Your task to perform on an android device: Search for vegetarian restaurants on Maps Image 0: 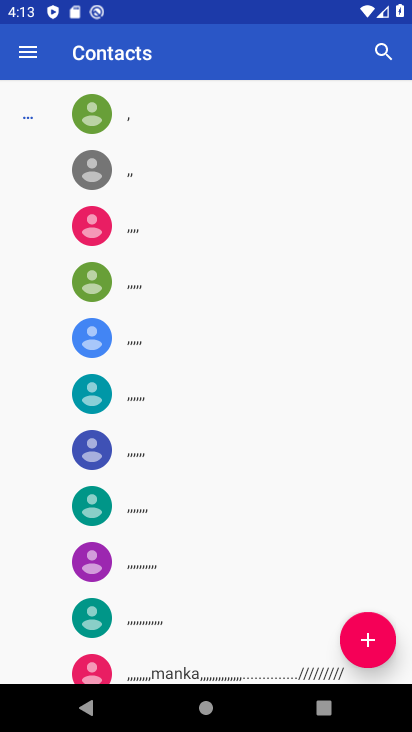
Step 0: press home button
Your task to perform on an android device: Search for vegetarian restaurants on Maps Image 1: 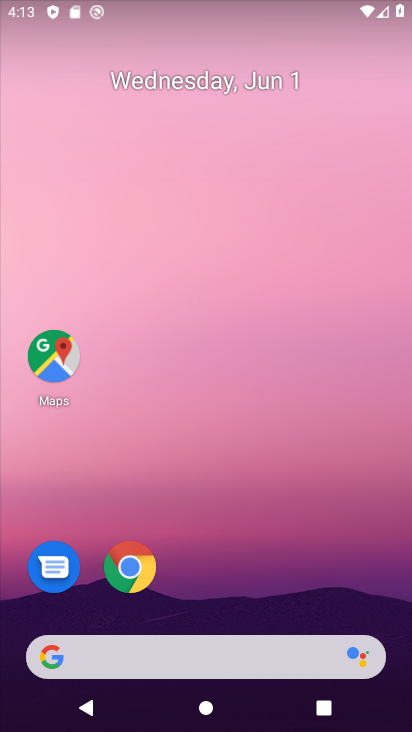
Step 1: click (55, 358)
Your task to perform on an android device: Search for vegetarian restaurants on Maps Image 2: 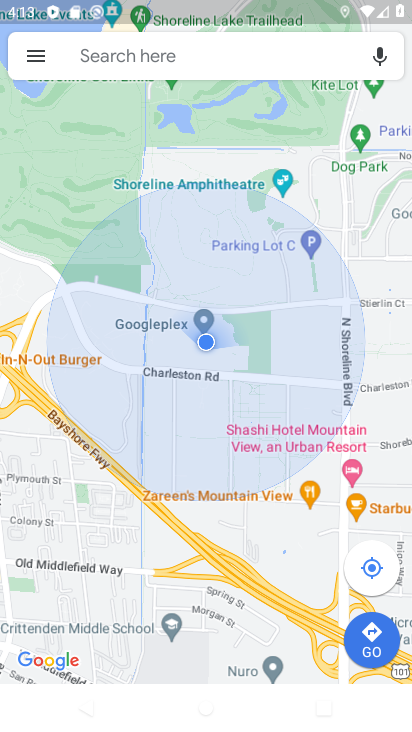
Step 2: click (175, 63)
Your task to perform on an android device: Search for vegetarian restaurants on Maps Image 3: 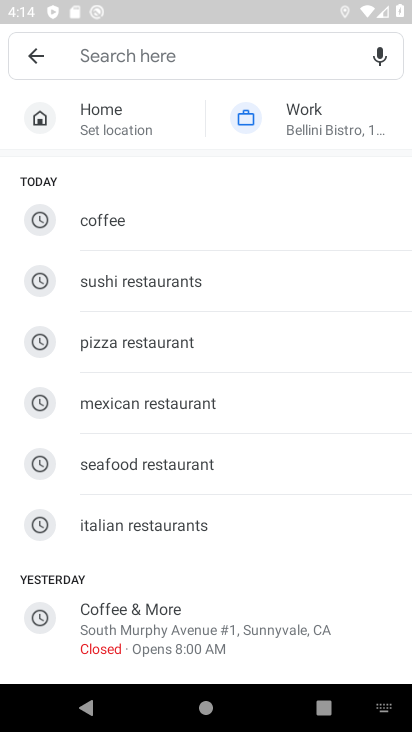
Step 3: type "vegetarian"
Your task to perform on an android device: Search for vegetarian restaurants on Maps Image 4: 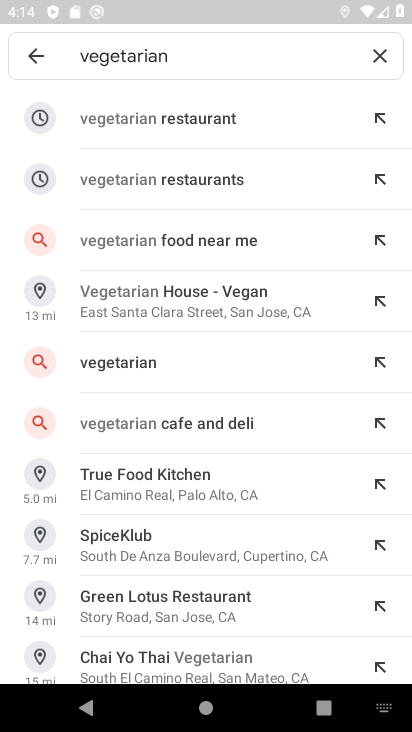
Step 4: click (258, 120)
Your task to perform on an android device: Search for vegetarian restaurants on Maps Image 5: 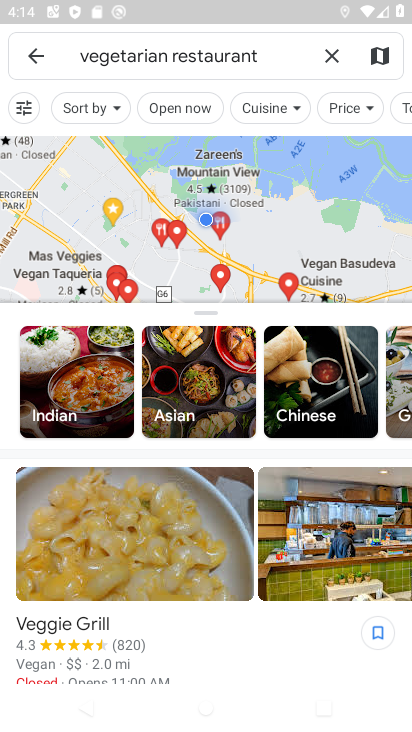
Step 5: task complete